Your task to perform on an android device: Open Google Maps and go to "Timeline" Image 0: 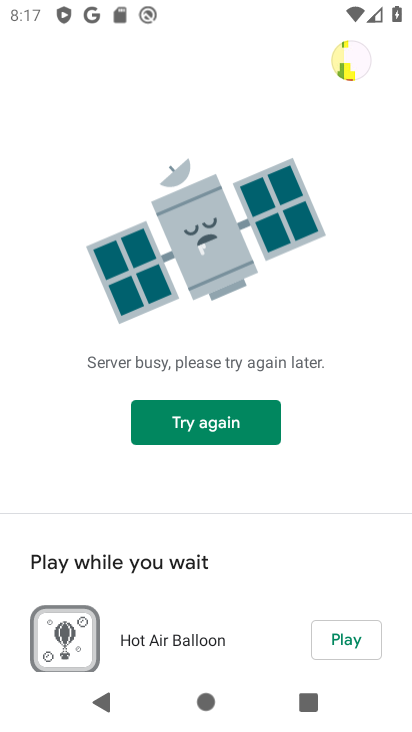
Step 0: task impossible